Your task to perform on an android device: Open the calendar app, open the side menu, and click the "Day" option Image 0: 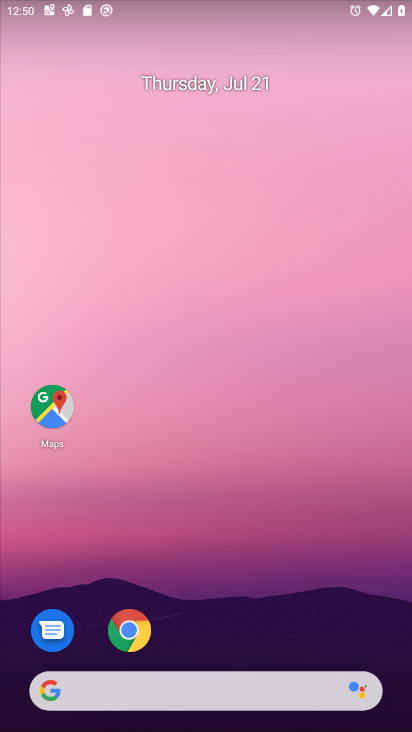
Step 0: click (411, 423)
Your task to perform on an android device: Open the calendar app, open the side menu, and click the "Day" option Image 1: 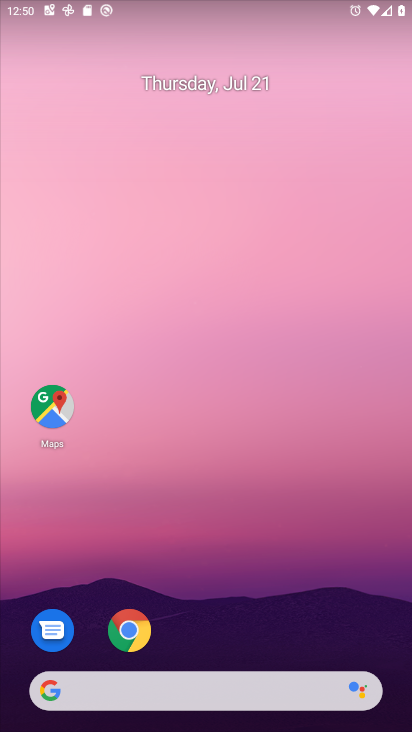
Step 1: drag from (200, 664) to (274, 291)
Your task to perform on an android device: Open the calendar app, open the side menu, and click the "Day" option Image 2: 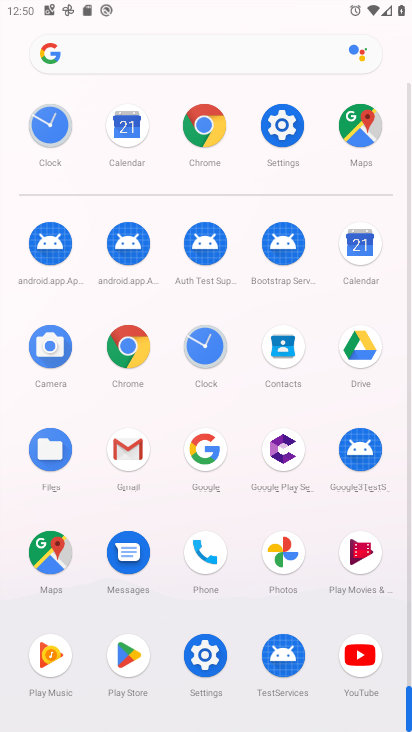
Step 2: click (362, 236)
Your task to perform on an android device: Open the calendar app, open the side menu, and click the "Day" option Image 3: 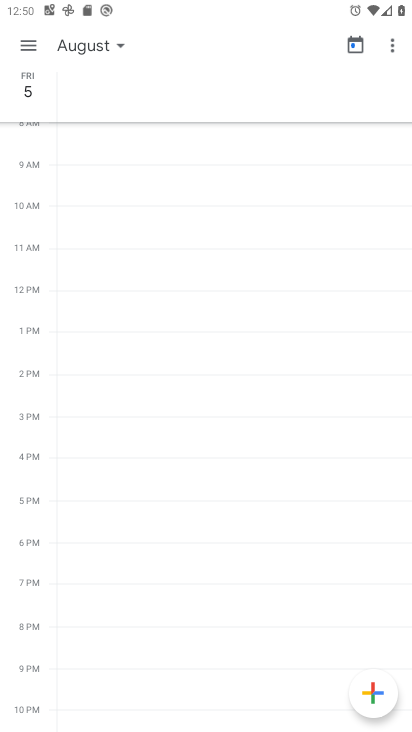
Step 3: click (100, 52)
Your task to perform on an android device: Open the calendar app, open the side menu, and click the "Day" option Image 4: 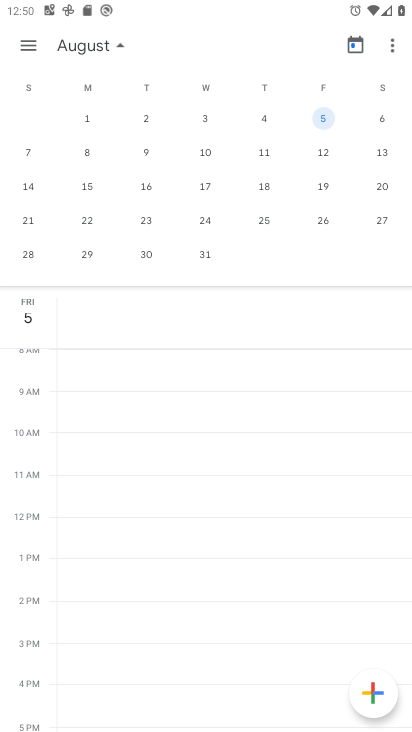
Step 4: click (22, 46)
Your task to perform on an android device: Open the calendar app, open the side menu, and click the "Day" option Image 5: 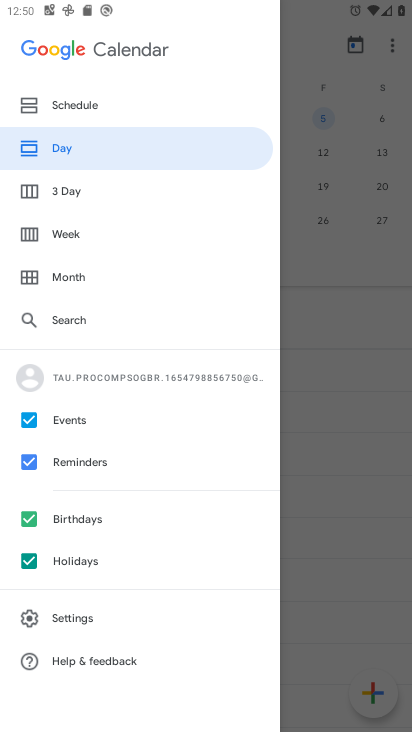
Step 5: click (90, 156)
Your task to perform on an android device: Open the calendar app, open the side menu, and click the "Day" option Image 6: 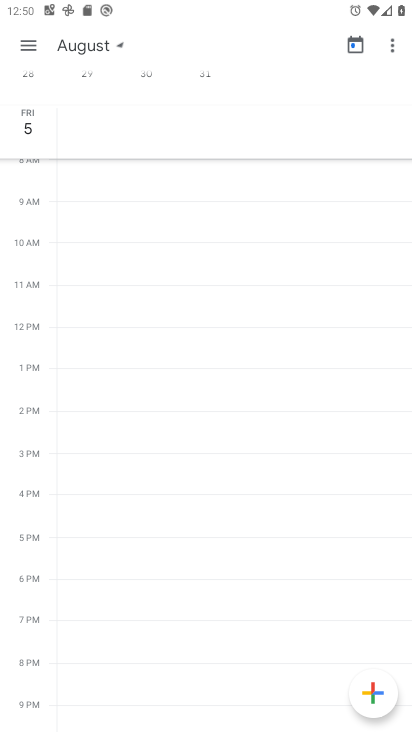
Step 6: task complete